Your task to perform on an android device: toggle location history Image 0: 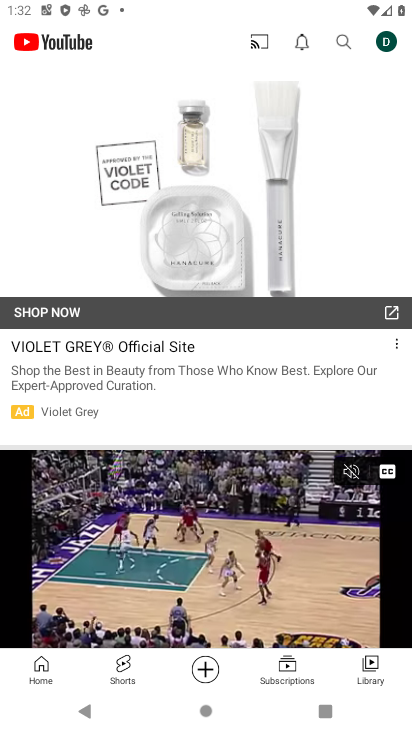
Step 0: press home button
Your task to perform on an android device: toggle location history Image 1: 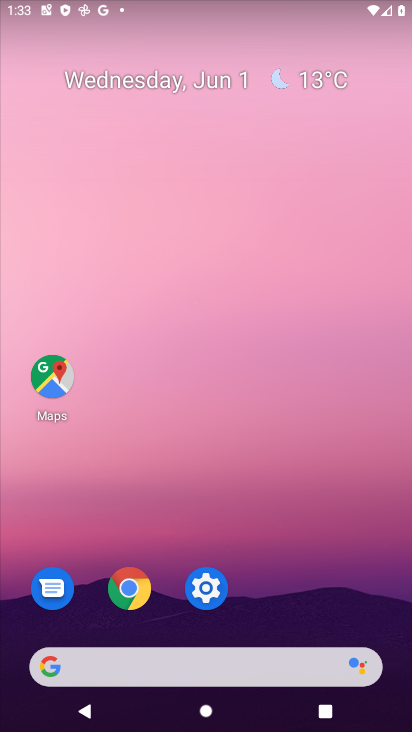
Step 1: click (204, 589)
Your task to perform on an android device: toggle location history Image 2: 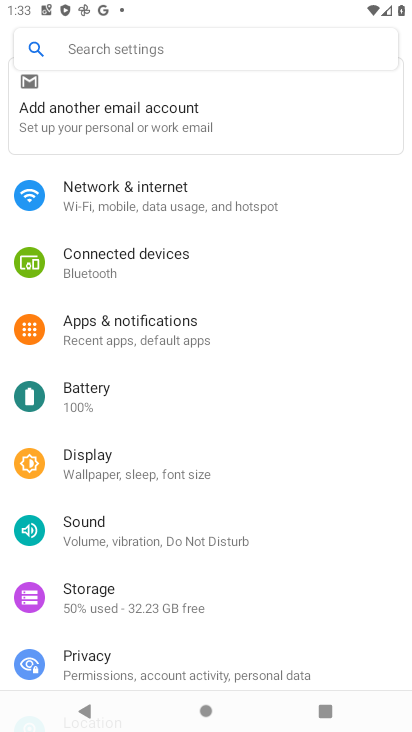
Step 2: click (165, 48)
Your task to perform on an android device: toggle location history Image 3: 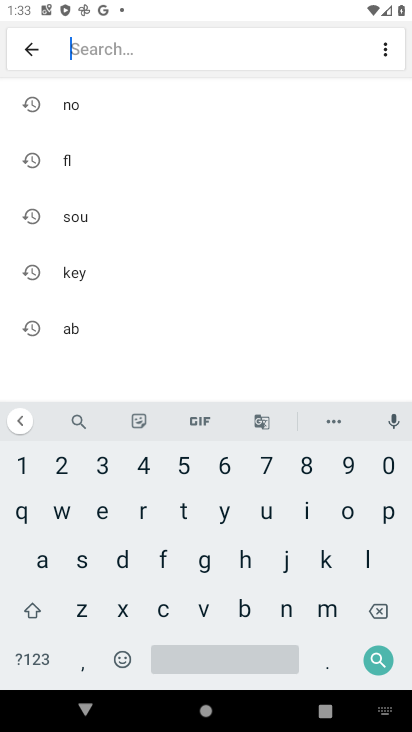
Step 3: click (368, 549)
Your task to perform on an android device: toggle location history Image 4: 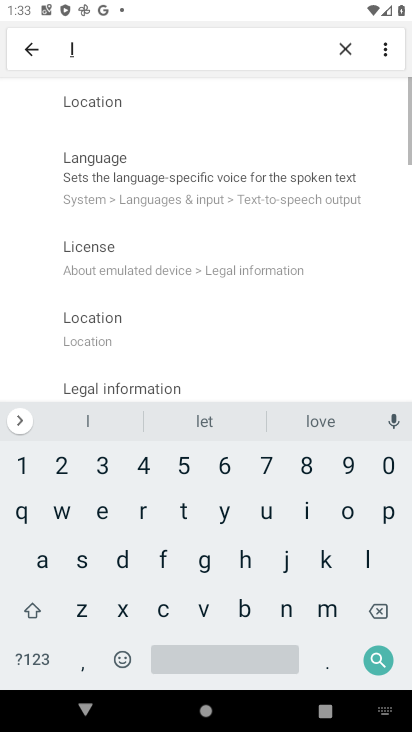
Step 4: click (342, 510)
Your task to perform on an android device: toggle location history Image 5: 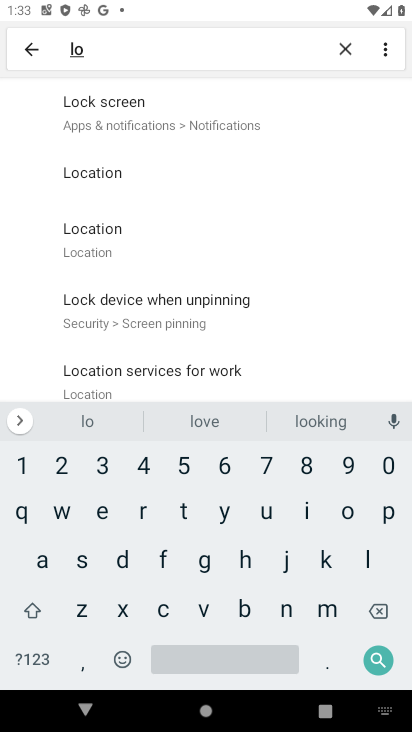
Step 5: click (95, 247)
Your task to perform on an android device: toggle location history Image 6: 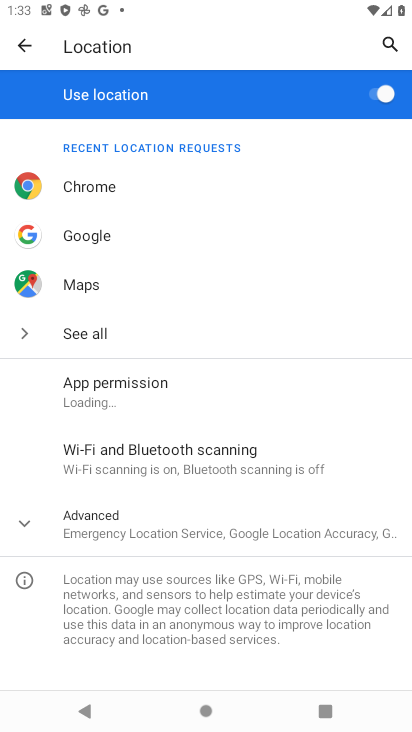
Step 6: click (50, 511)
Your task to perform on an android device: toggle location history Image 7: 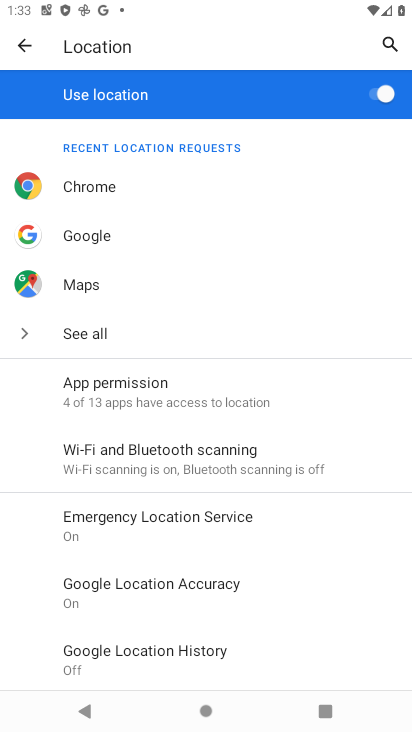
Step 7: click (165, 649)
Your task to perform on an android device: toggle location history Image 8: 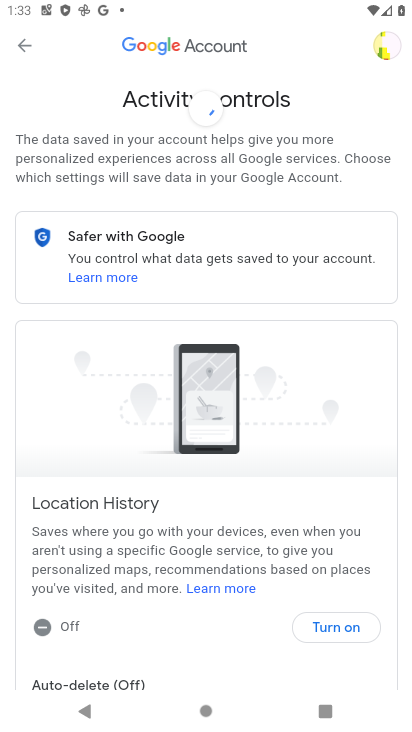
Step 8: task complete